Your task to perform on an android device: open wifi settings Image 0: 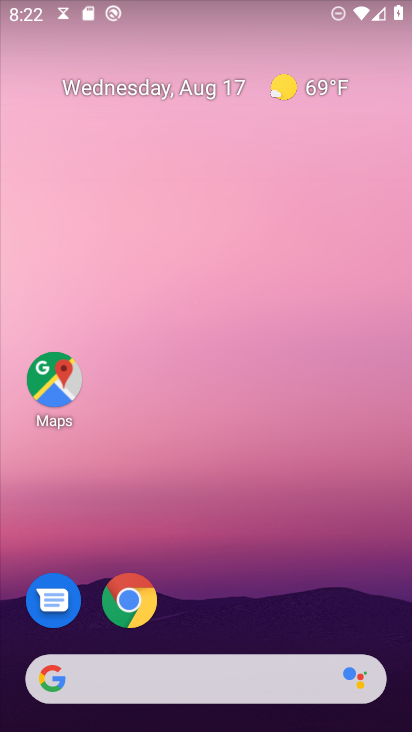
Step 0: press home button
Your task to perform on an android device: open wifi settings Image 1: 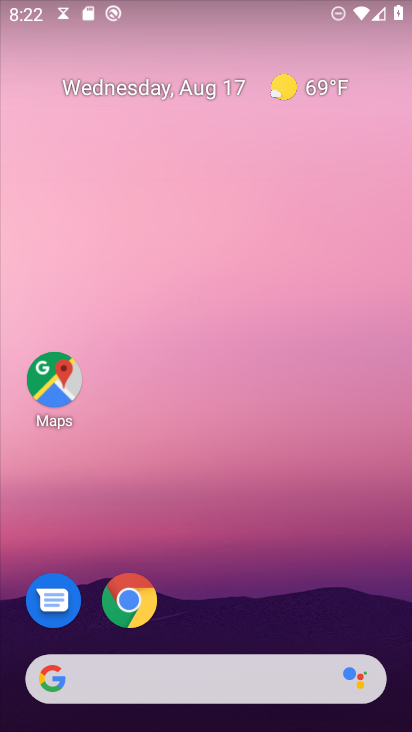
Step 1: drag from (266, 539) to (210, 161)
Your task to perform on an android device: open wifi settings Image 2: 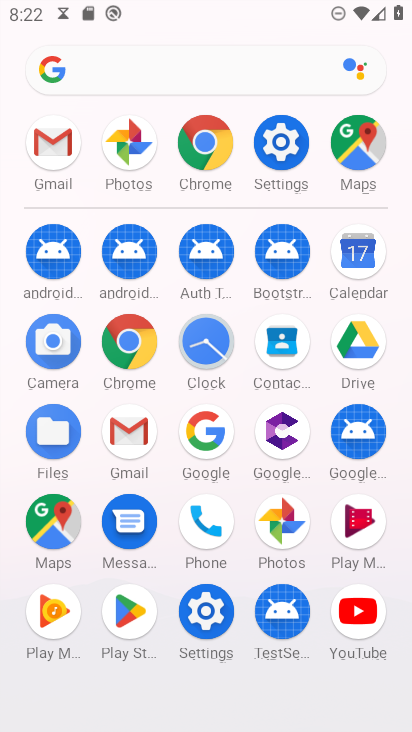
Step 2: click (268, 147)
Your task to perform on an android device: open wifi settings Image 3: 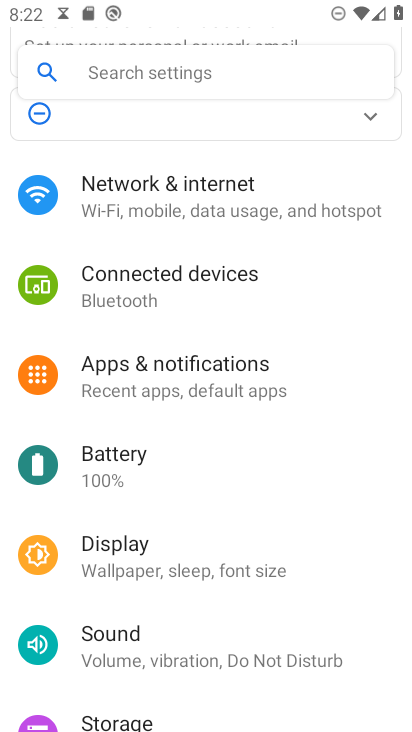
Step 3: click (184, 205)
Your task to perform on an android device: open wifi settings Image 4: 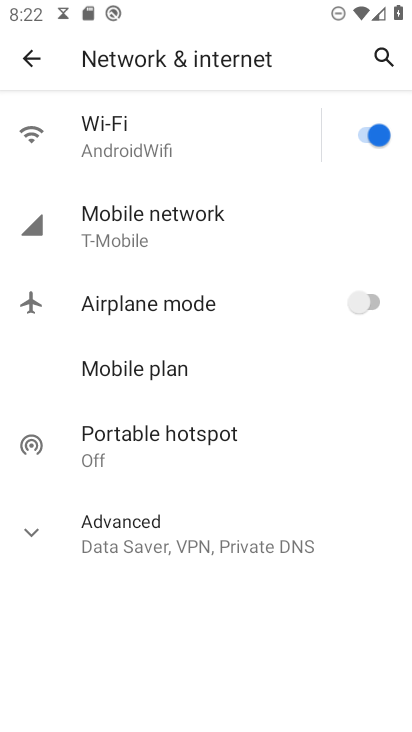
Step 4: task complete